Your task to perform on an android device: change keyboard looks Image 0: 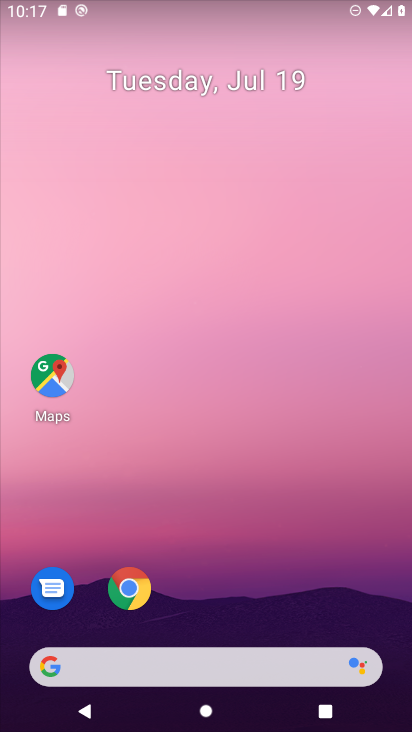
Step 0: click (166, 47)
Your task to perform on an android device: change keyboard looks Image 1: 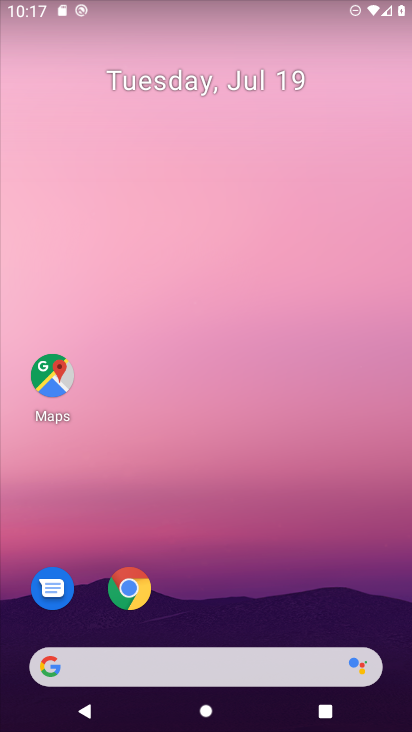
Step 1: drag from (226, 633) to (204, 113)
Your task to perform on an android device: change keyboard looks Image 2: 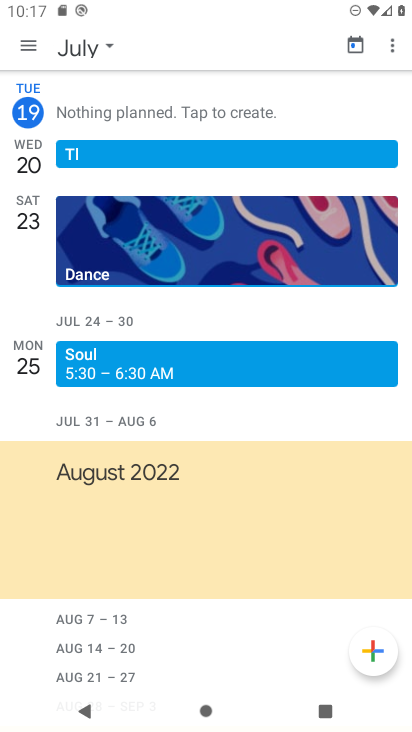
Step 2: drag from (192, 474) to (186, 89)
Your task to perform on an android device: change keyboard looks Image 3: 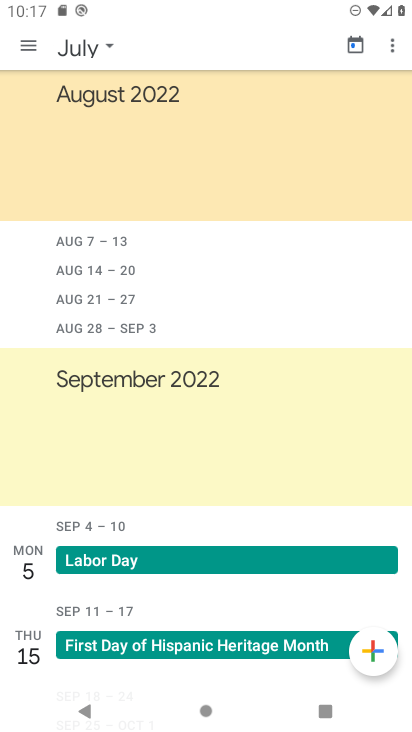
Step 3: drag from (142, 182) to (142, 403)
Your task to perform on an android device: change keyboard looks Image 4: 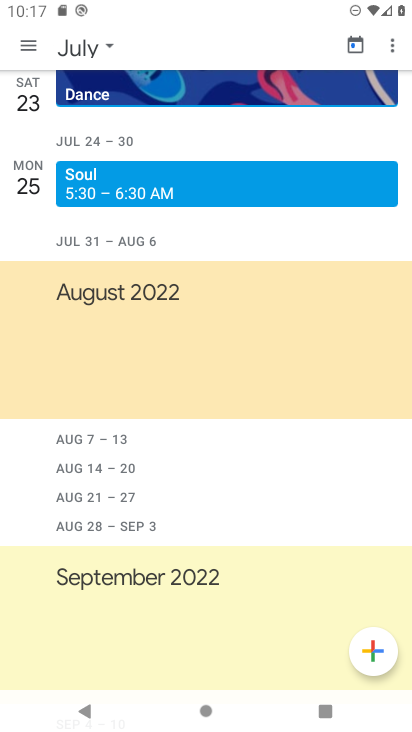
Step 4: drag from (142, 291) to (144, 435)
Your task to perform on an android device: change keyboard looks Image 5: 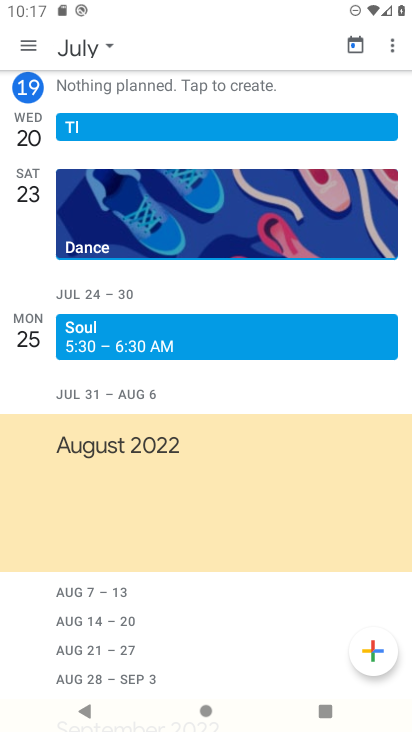
Step 5: drag from (98, 236) to (91, 455)
Your task to perform on an android device: change keyboard looks Image 6: 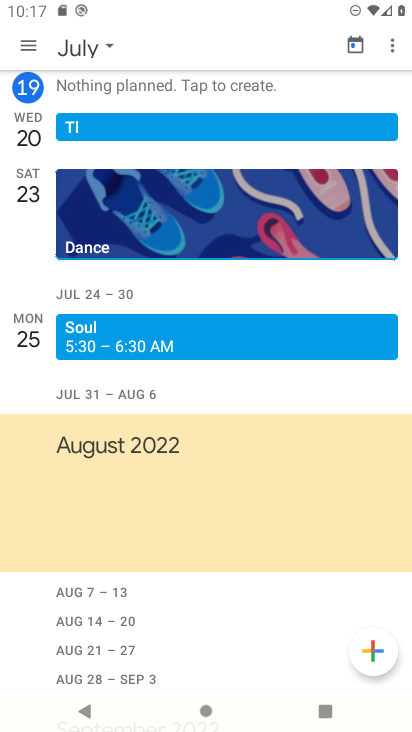
Step 6: click (121, 506)
Your task to perform on an android device: change keyboard looks Image 7: 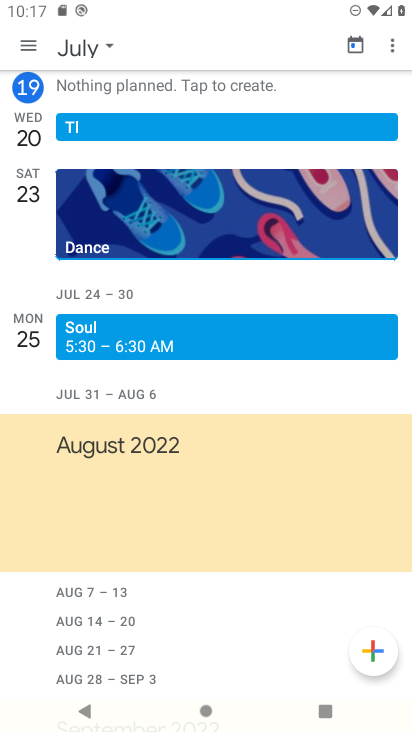
Step 7: drag from (132, 224) to (193, 525)
Your task to perform on an android device: change keyboard looks Image 8: 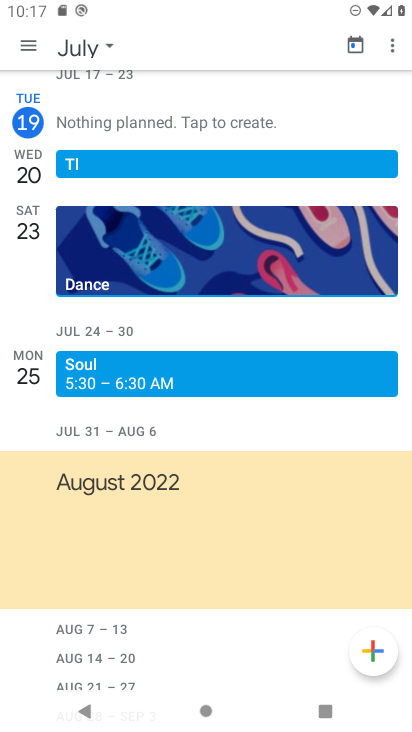
Step 8: click (151, 483)
Your task to perform on an android device: change keyboard looks Image 9: 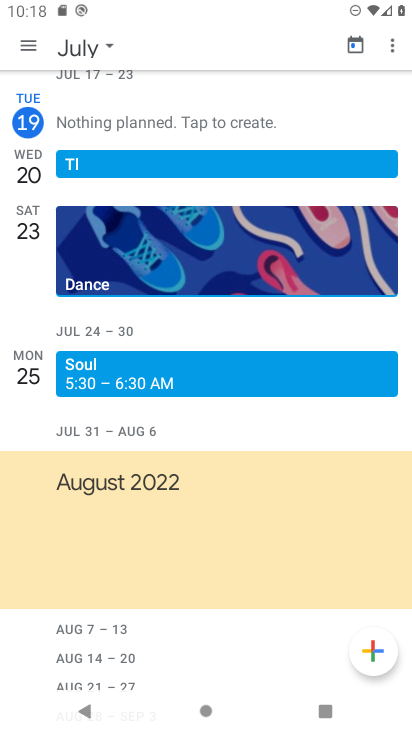
Step 9: press back button
Your task to perform on an android device: change keyboard looks Image 10: 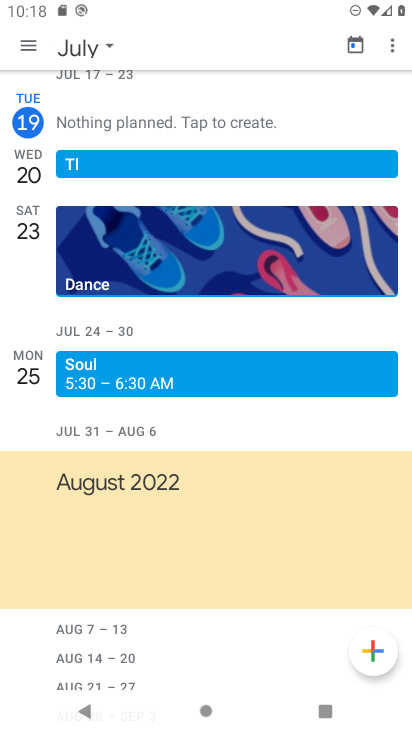
Step 10: press back button
Your task to perform on an android device: change keyboard looks Image 11: 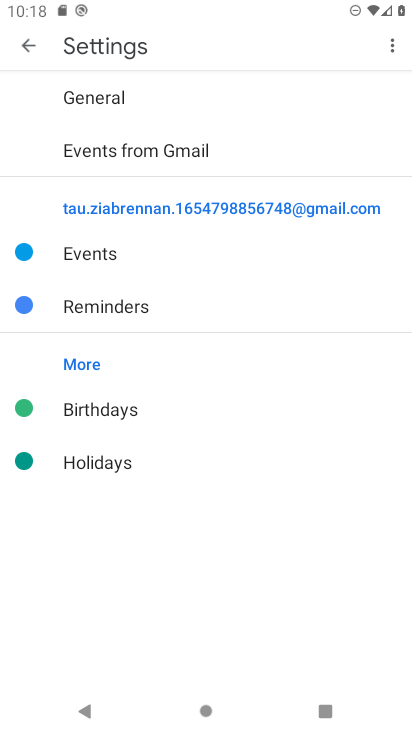
Step 11: press back button
Your task to perform on an android device: change keyboard looks Image 12: 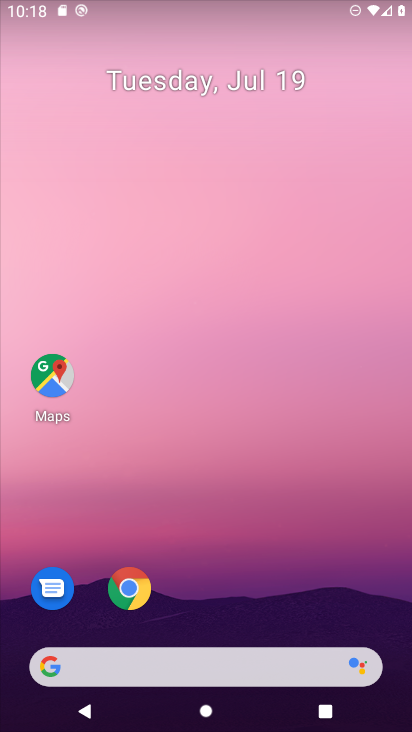
Step 12: click (24, 44)
Your task to perform on an android device: change keyboard looks Image 13: 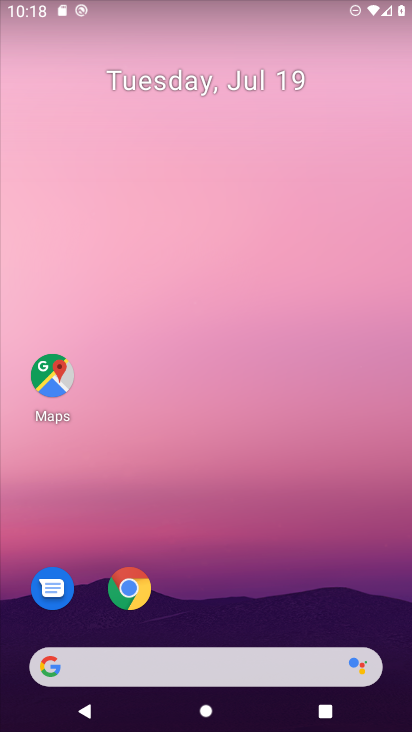
Step 13: click (26, 44)
Your task to perform on an android device: change keyboard looks Image 14: 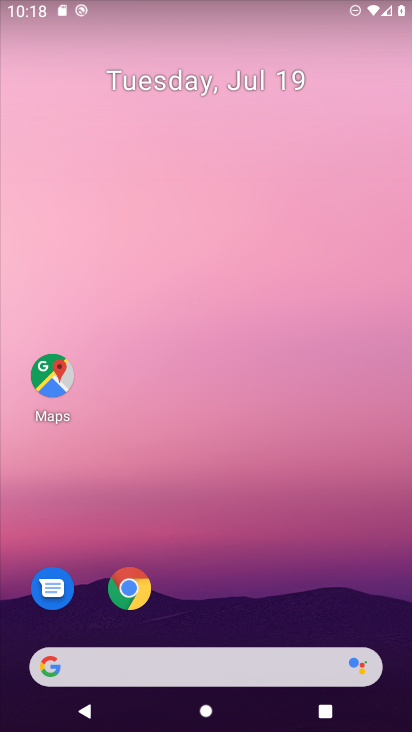
Step 14: drag from (213, 596) to (216, 136)
Your task to perform on an android device: change keyboard looks Image 15: 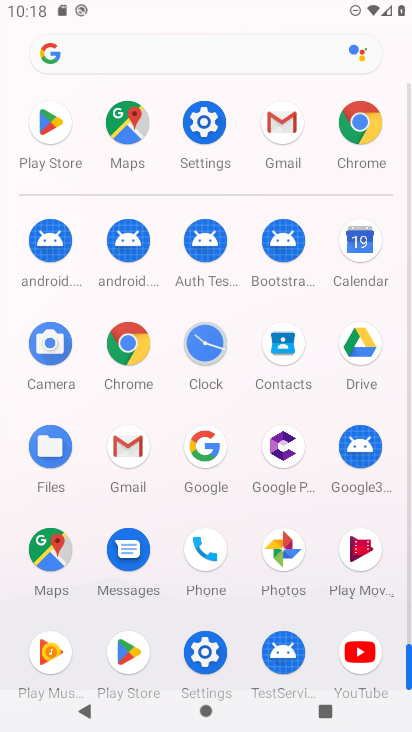
Step 15: click (204, 115)
Your task to perform on an android device: change keyboard looks Image 16: 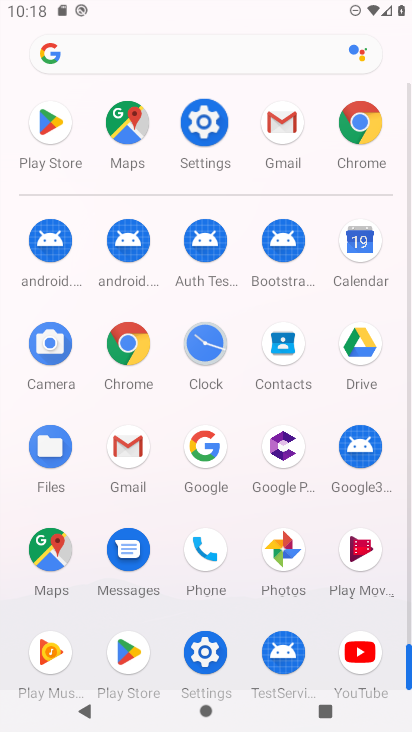
Step 16: click (203, 116)
Your task to perform on an android device: change keyboard looks Image 17: 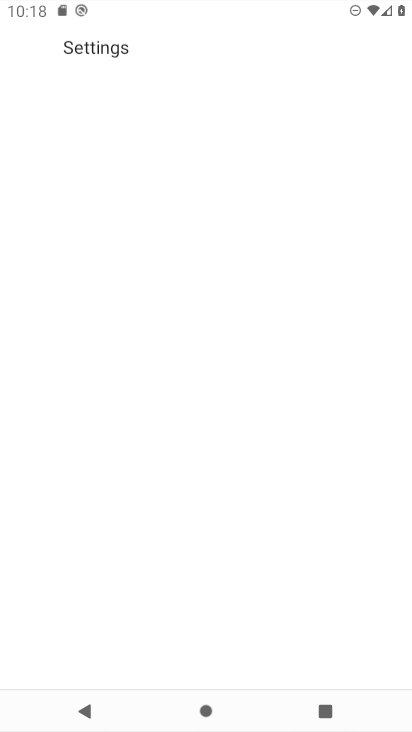
Step 17: click (212, 119)
Your task to perform on an android device: change keyboard looks Image 18: 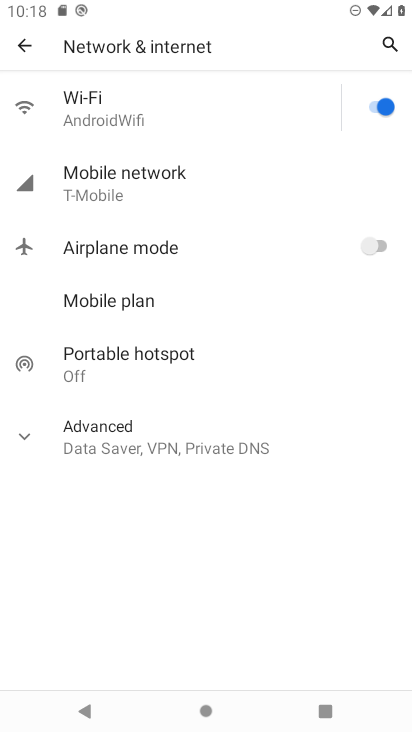
Step 18: click (26, 46)
Your task to perform on an android device: change keyboard looks Image 19: 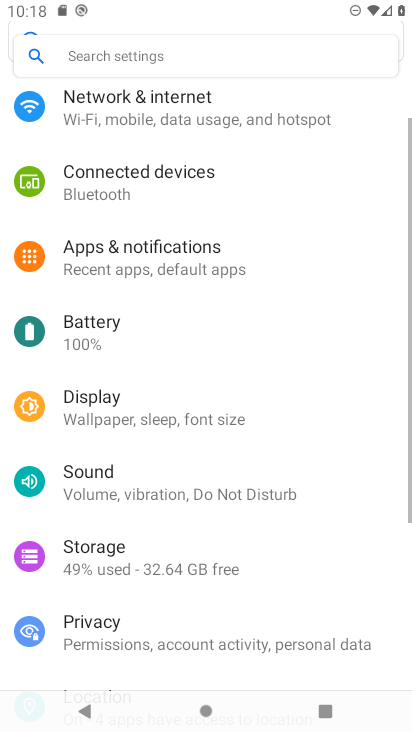
Step 19: drag from (132, 619) to (141, 181)
Your task to perform on an android device: change keyboard looks Image 20: 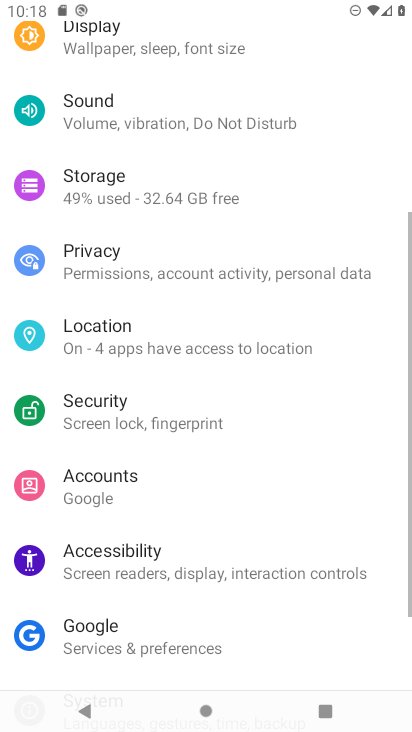
Step 20: drag from (207, 612) to (201, 111)
Your task to perform on an android device: change keyboard looks Image 21: 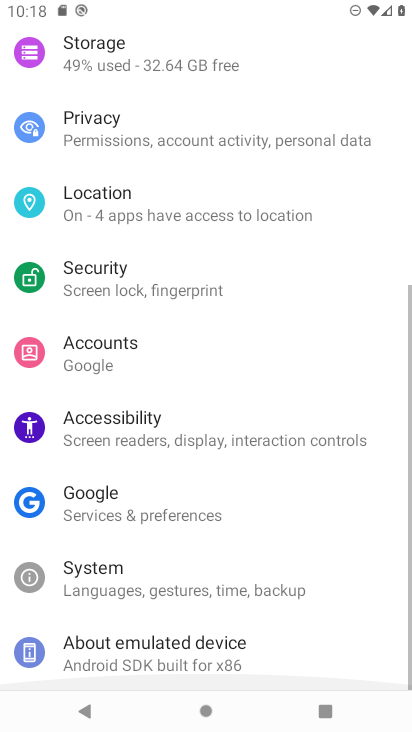
Step 21: drag from (181, 409) to (182, 120)
Your task to perform on an android device: change keyboard looks Image 22: 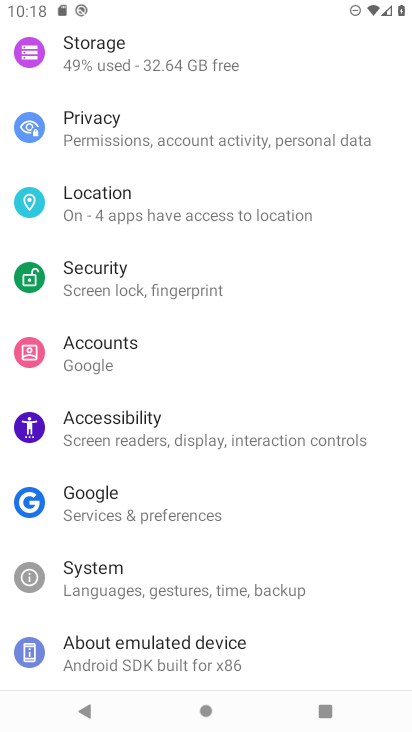
Step 22: click (91, 133)
Your task to perform on an android device: change keyboard looks Image 23: 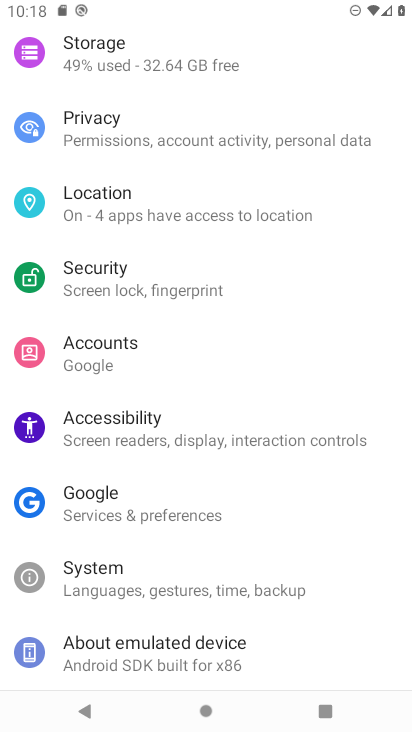
Step 23: click (90, 575)
Your task to perform on an android device: change keyboard looks Image 24: 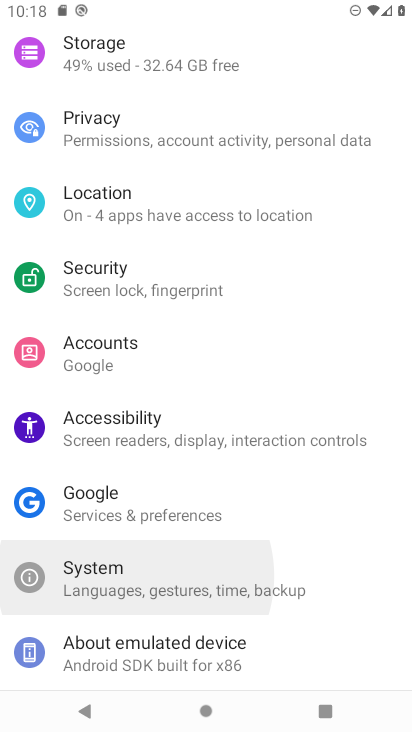
Step 24: click (94, 578)
Your task to perform on an android device: change keyboard looks Image 25: 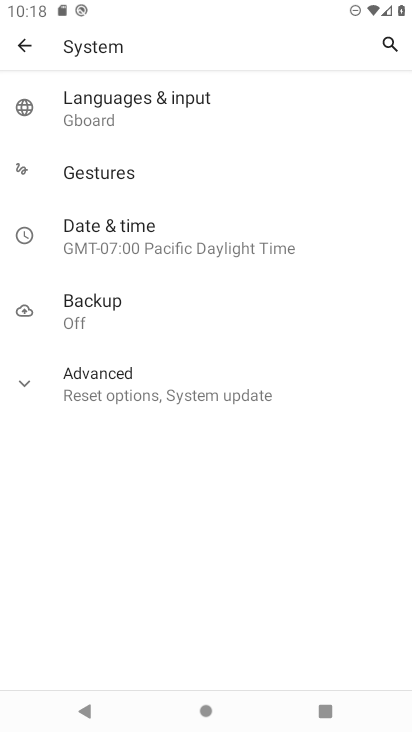
Step 25: click (82, 111)
Your task to perform on an android device: change keyboard looks Image 26: 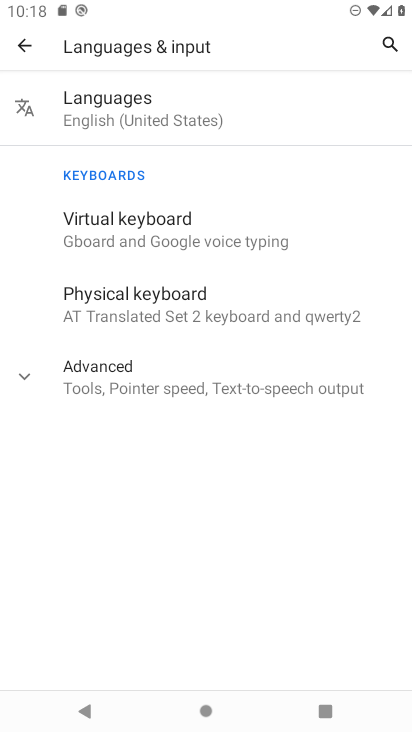
Step 26: click (108, 237)
Your task to perform on an android device: change keyboard looks Image 27: 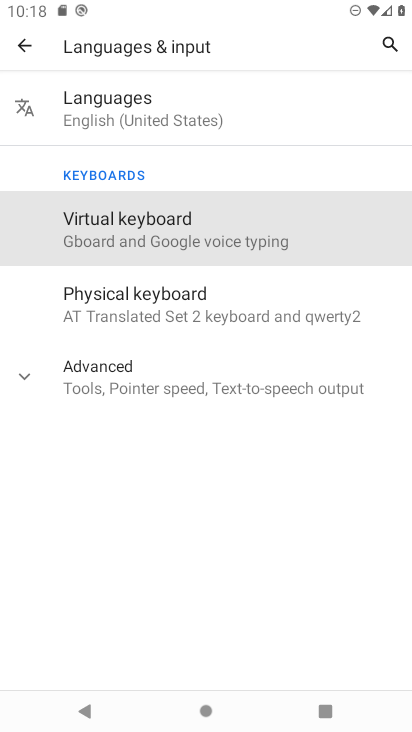
Step 27: click (108, 237)
Your task to perform on an android device: change keyboard looks Image 28: 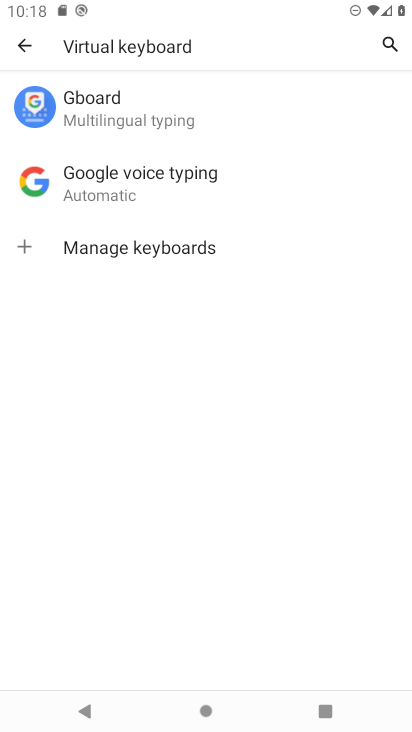
Step 28: click (91, 100)
Your task to perform on an android device: change keyboard looks Image 29: 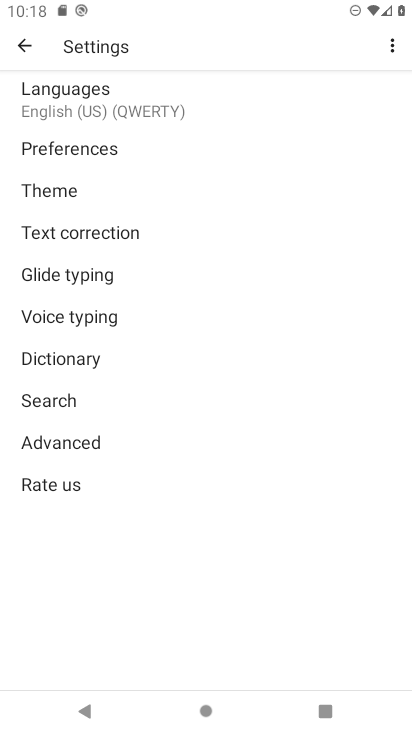
Step 29: click (62, 185)
Your task to perform on an android device: change keyboard looks Image 30: 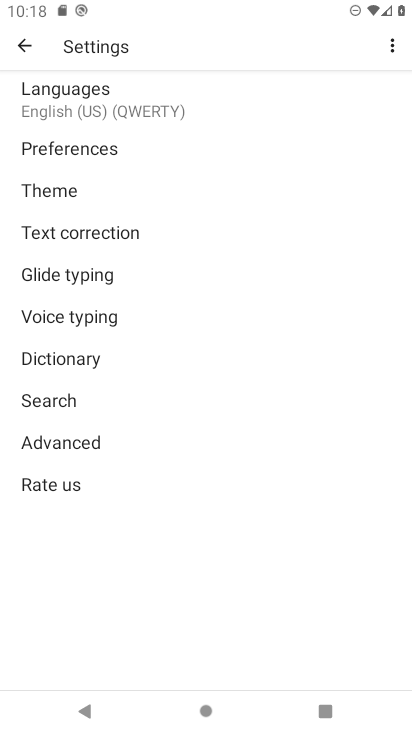
Step 30: click (62, 185)
Your task to perform on an android device: change keyboard looks Image 31: 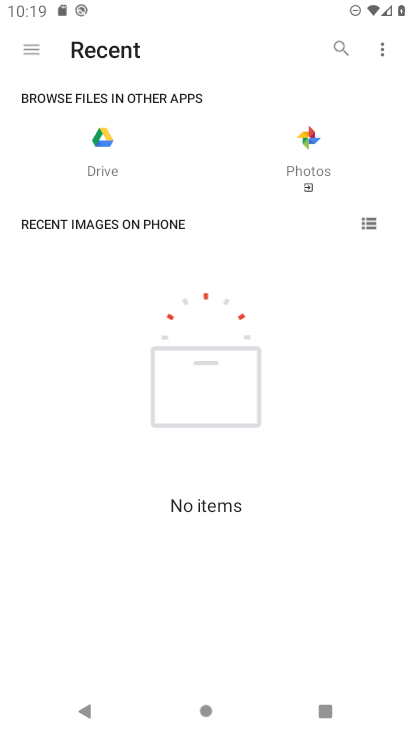
Step 31: press back button
Your task to perform on an android device: change keyboard looks Image 32: 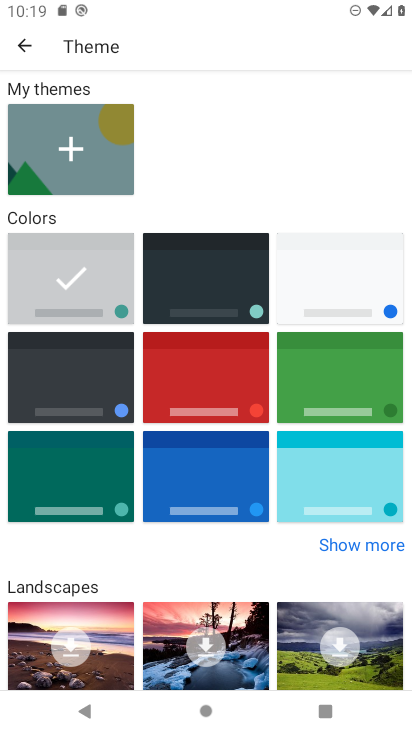
Step 32: click (76, 452)
Your task to perform on an android device: change keyboard looks Image 33: 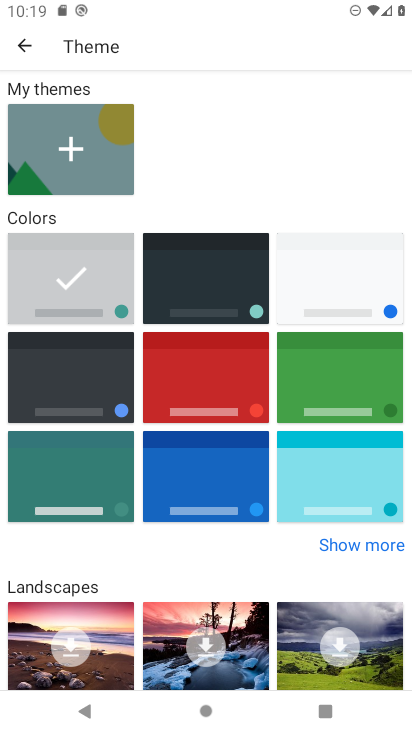
Step 33: click (75, 454)
Your task to perform on an android device: change keyboard looks Image 34: 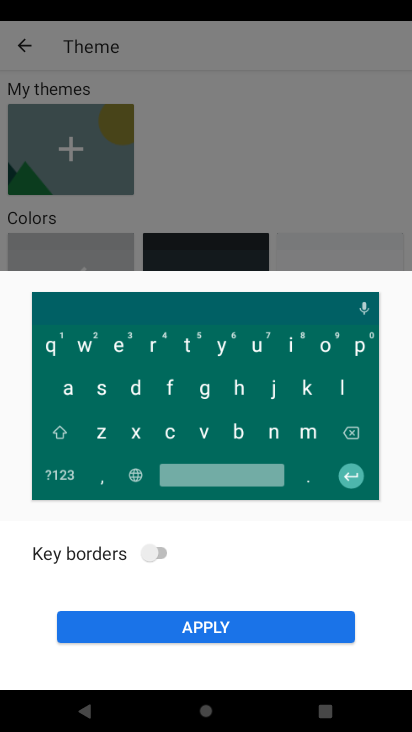
Step 34: click (207, 635)
Your task to perform on an android device: change keyboard looks Image 35: 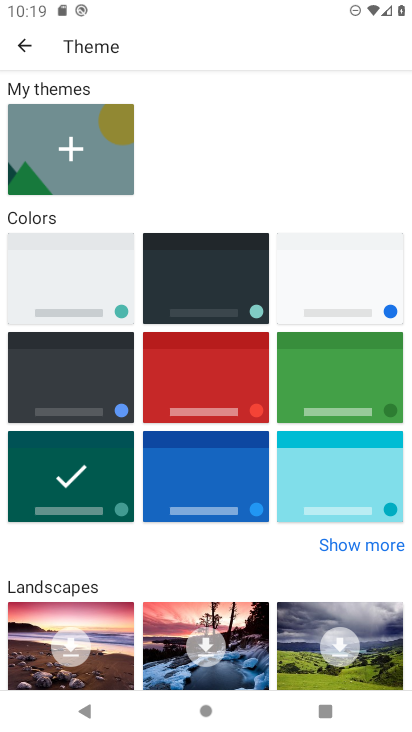
Step 35: task complete